Your task to perform on an android device: Open the web browser Image 0: 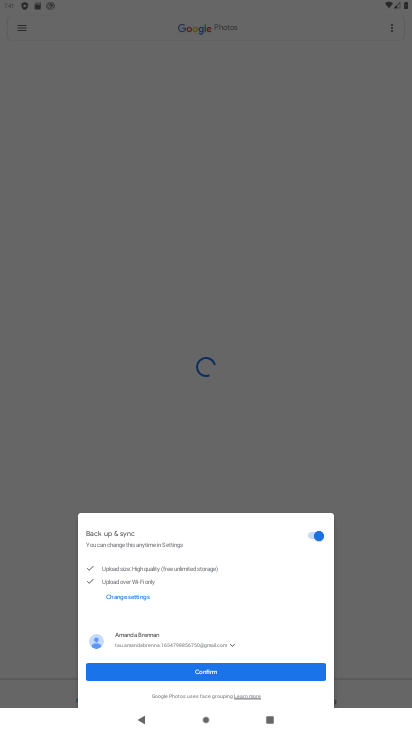
Step 0: press home button
Your task to perform on an android device: Open the web browser Image 1: 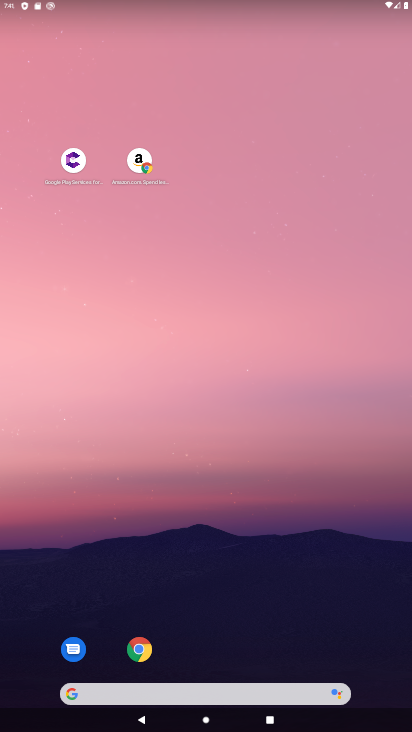
Step 1: click (139, 649)
Your task to perform on an android device: Open the web browser Image 2: 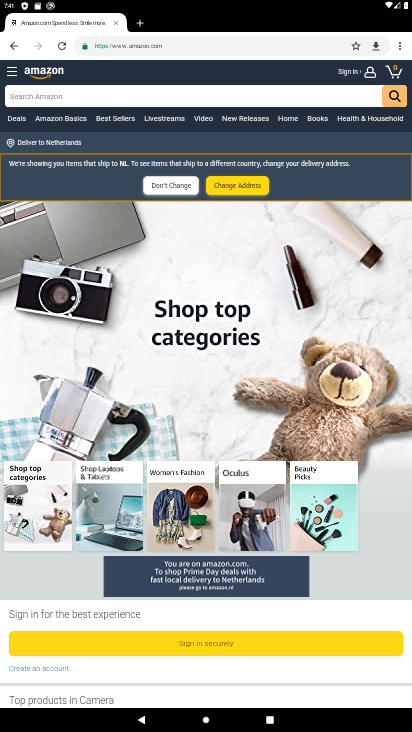
Step 2: task complete